Your task to perform on an android device: change timer sound Image 0: 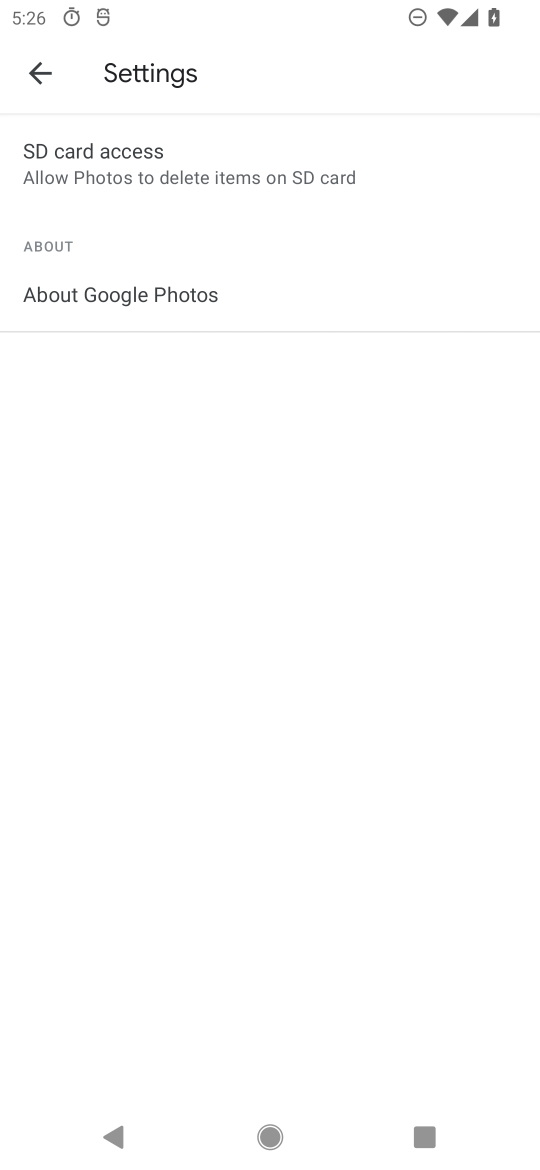
Step 0: press home button
Your task to perform on an android device: change timer sound Image 1: 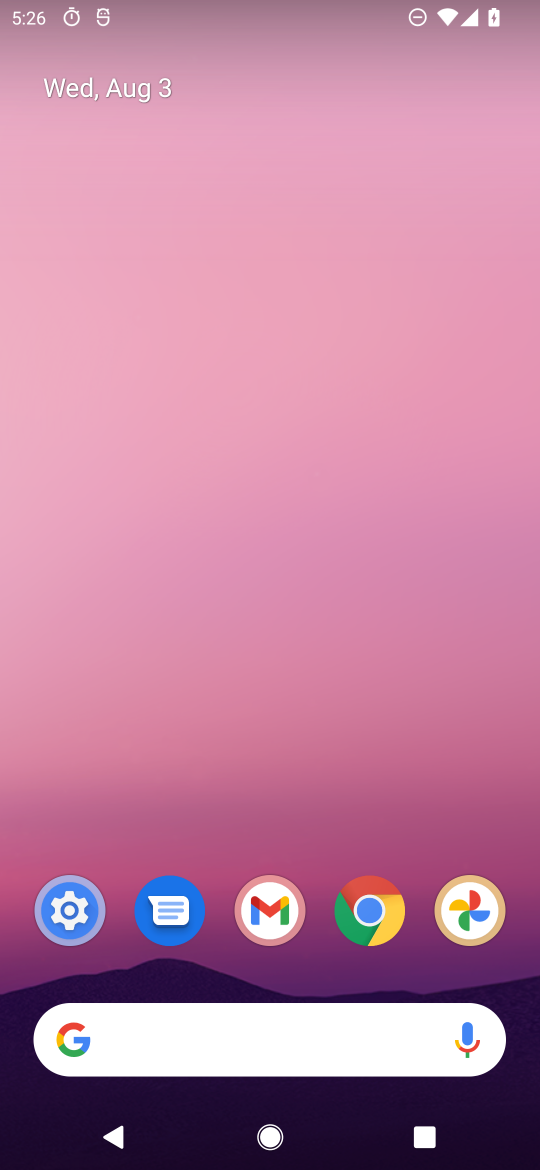
Step 1: drag from (69, 1119) to (297, 89)
Your task to perform on an android device: change timer sound Image 2: 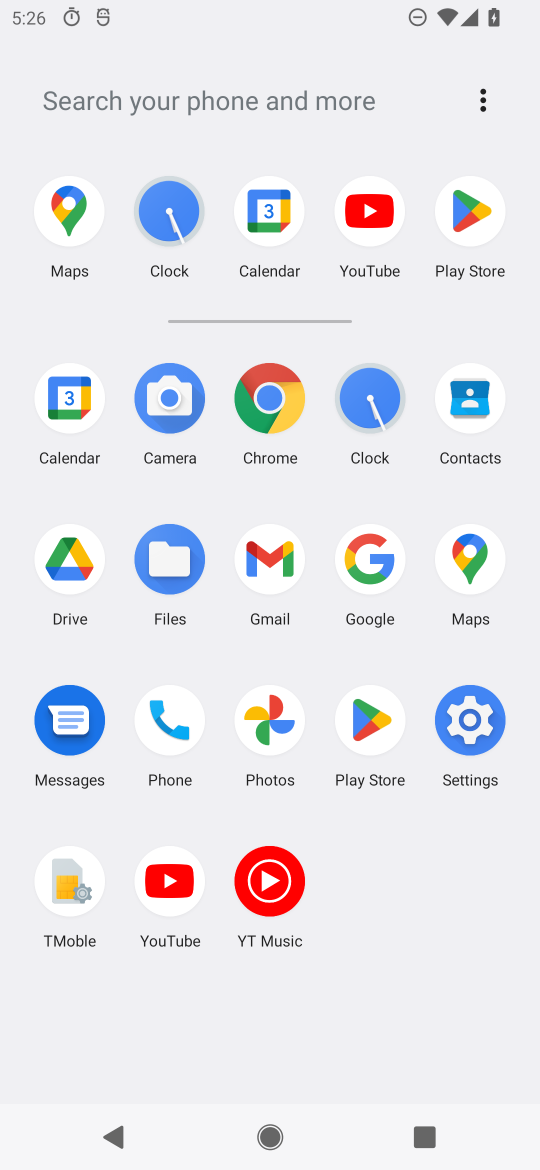
Step 2: click (363, 411)
Your task to perform on an android device: change timer sound Image 3: 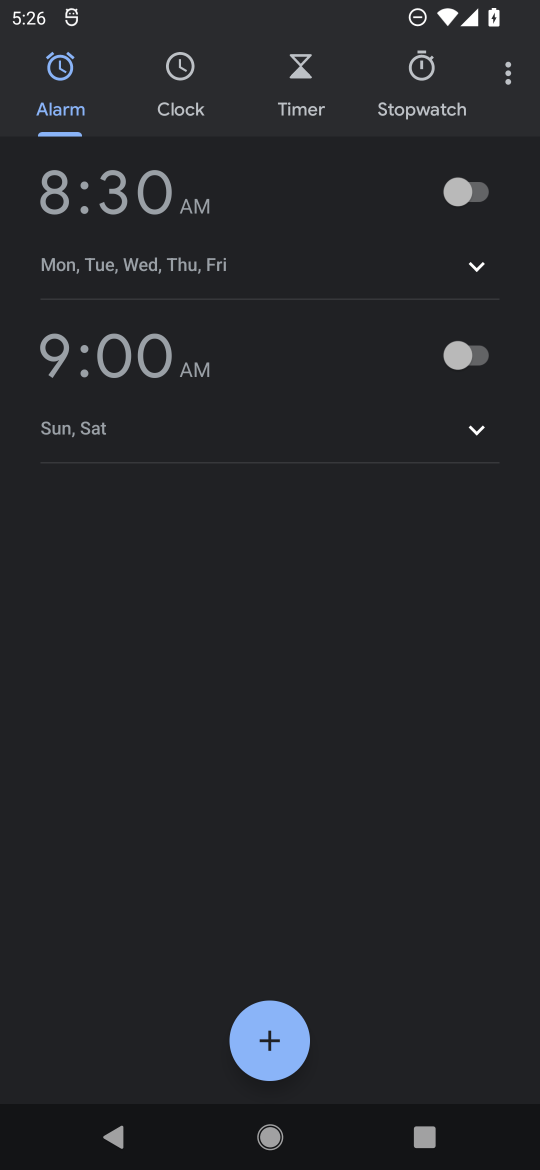
Step 3: click (308, 98)
Your task to perform on an android device: change timer sound Image 4: 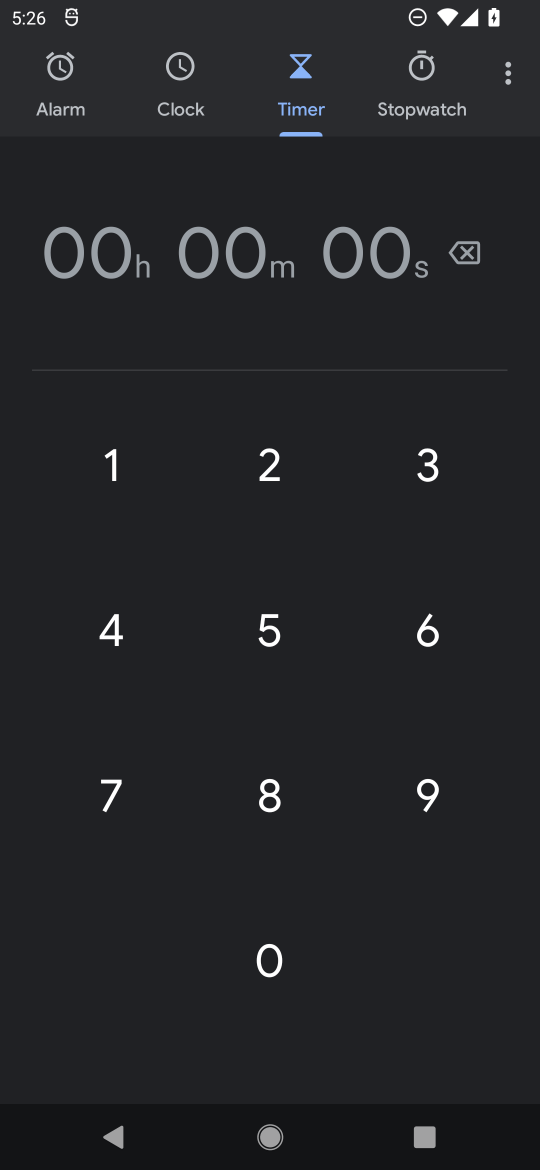
Step 4: click (499, 72)
Your task to perform on an android device: change timer sound Image 5: 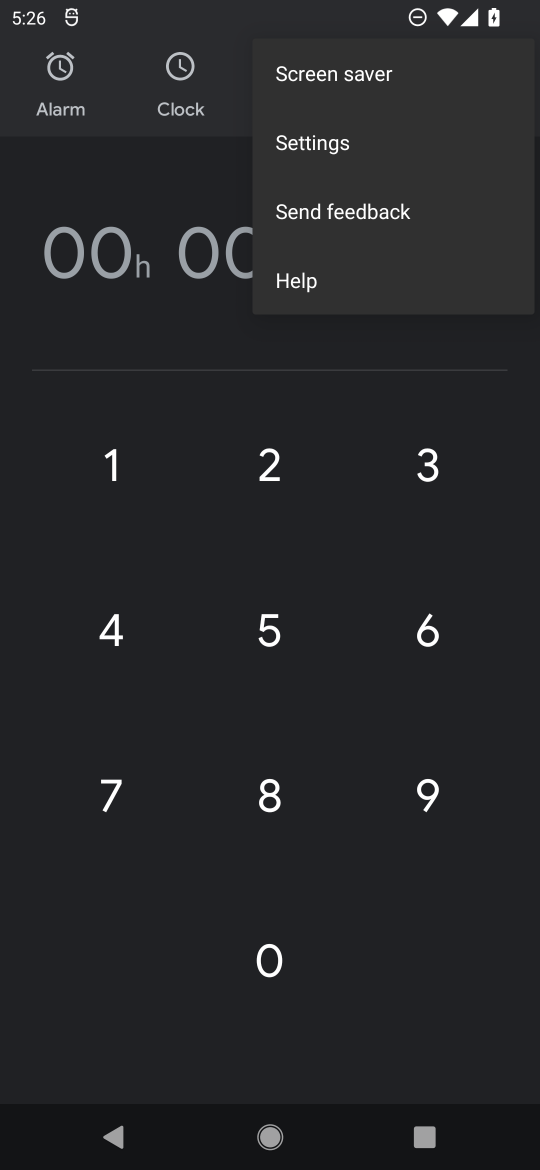
Step 5: click (363, 161)
Your task to perform on an android device: change timer sound Image 6: 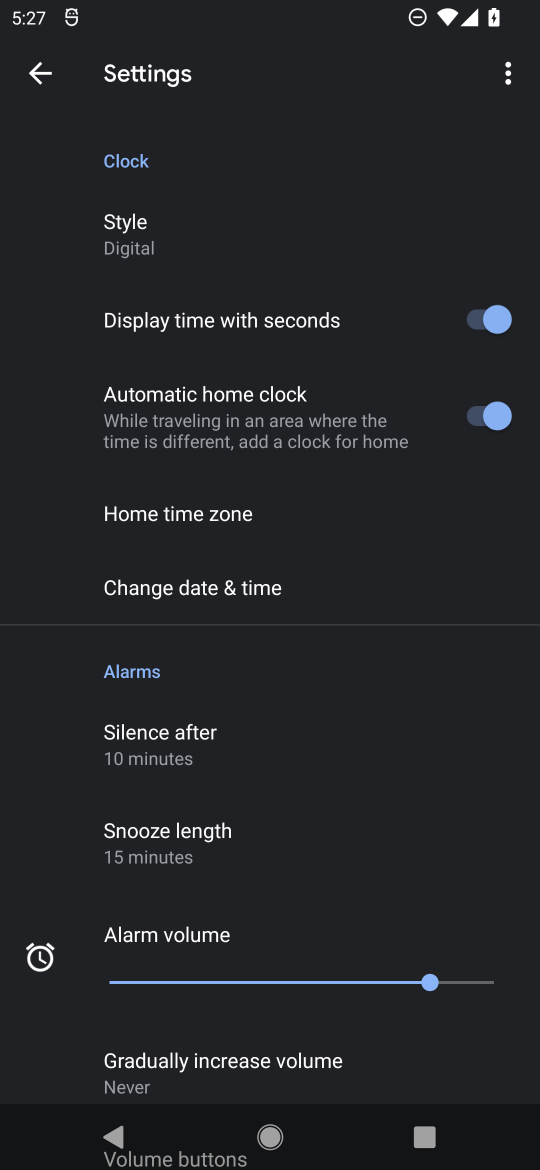
Step 6: drag from (268, 693) to (317, 128)
Your task to perform on an android device: change timer sound Image 7: 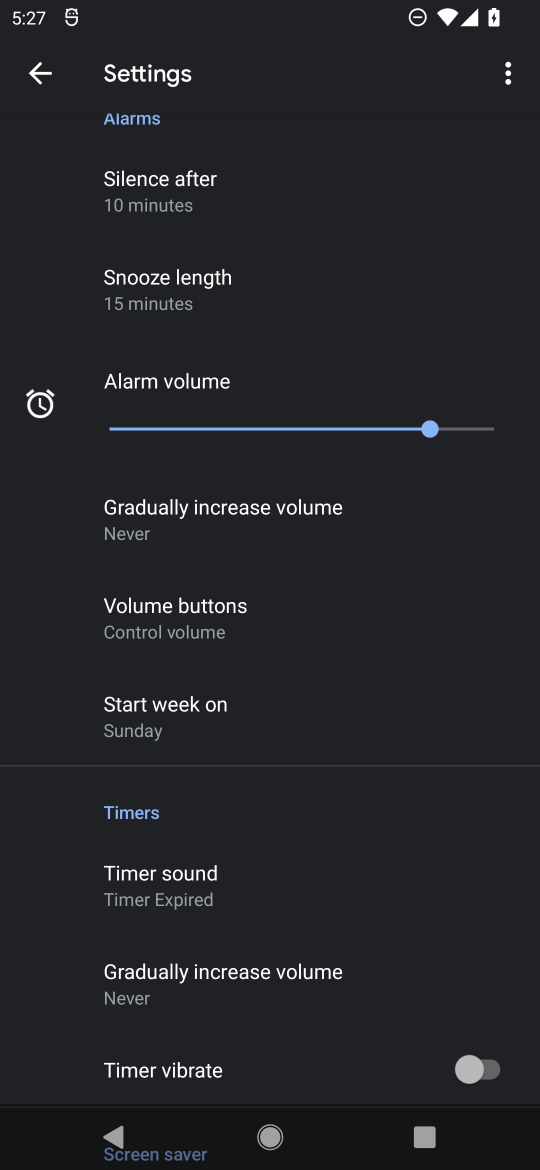
Step 7: click (211, 887)
Your task to perform on an android device: change timer sound Image 8: 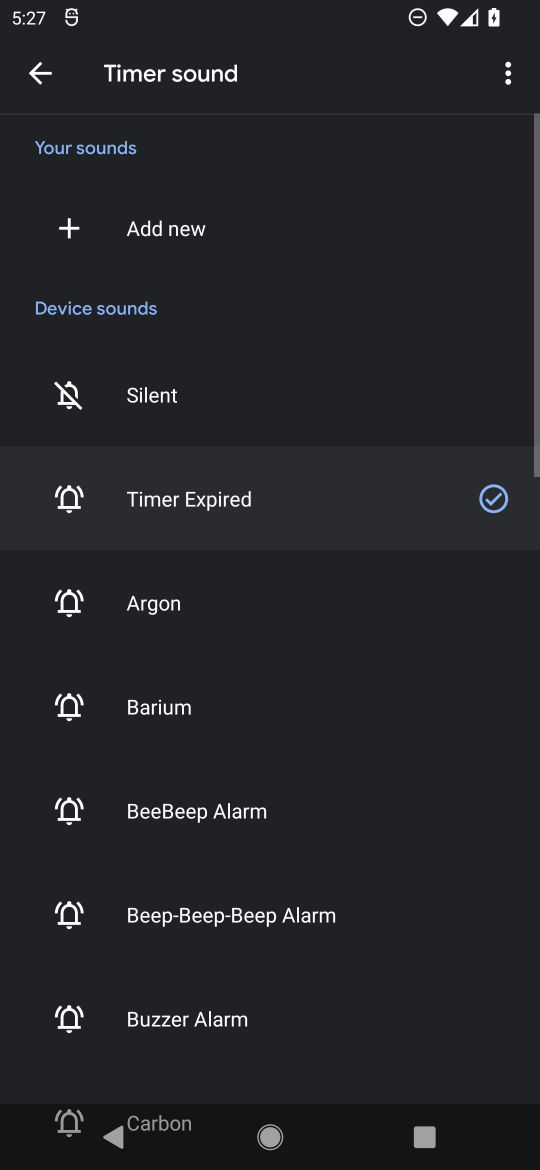
Step 8: click (199, 618)
Your task to perform on an android device: change timer sound Image 9: 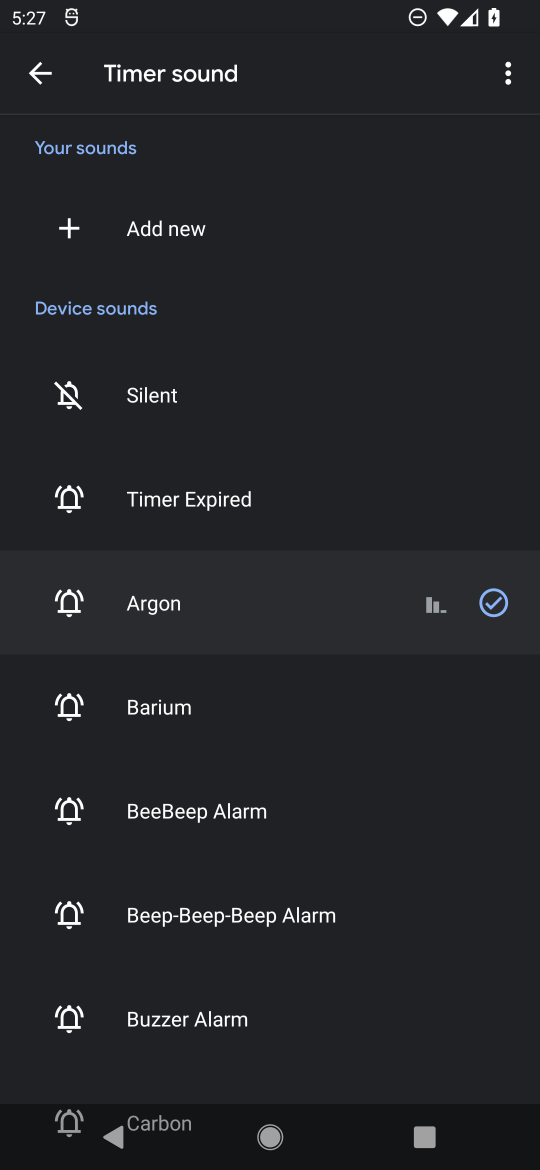
Step 9: task complete